Your task to perform on an android device: turn pop-ups off in chrome Image 0: 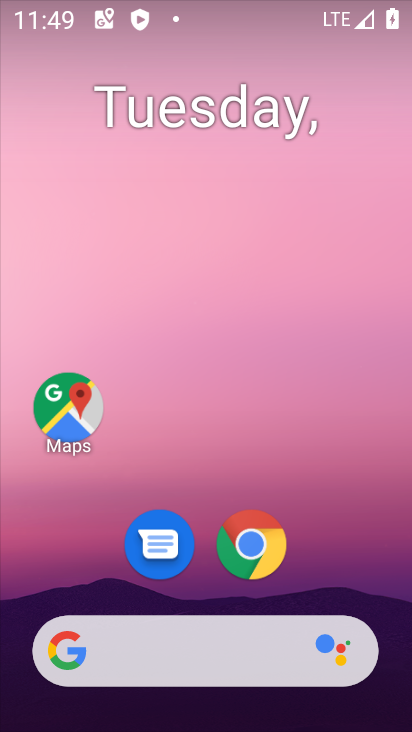
Step 0: drag from (392, 625) to (333, 52)
Your task to perform on an android device: turn pop-ups off in chrome Image 1: 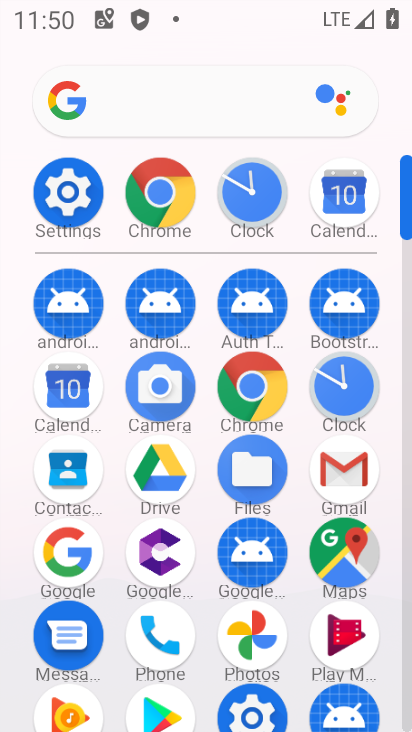
Step 1: click (259, 397)
Your task to perform on an android device: turn pop-ups off in chrome Image 2: 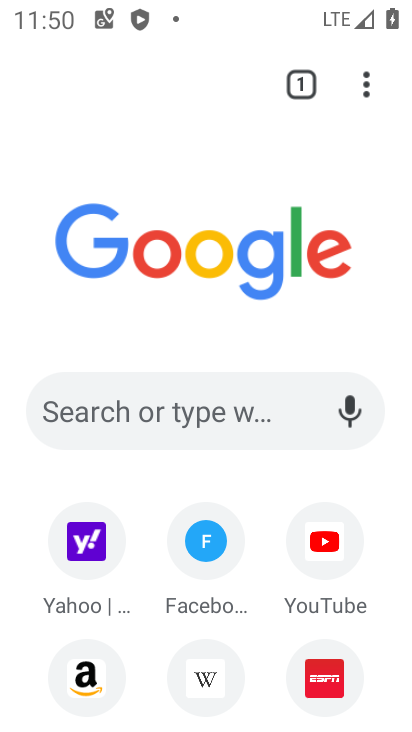
Step 2: click (371, 83)
Your task to perform on an android device: turn pop-ups off in chrome Image 3: 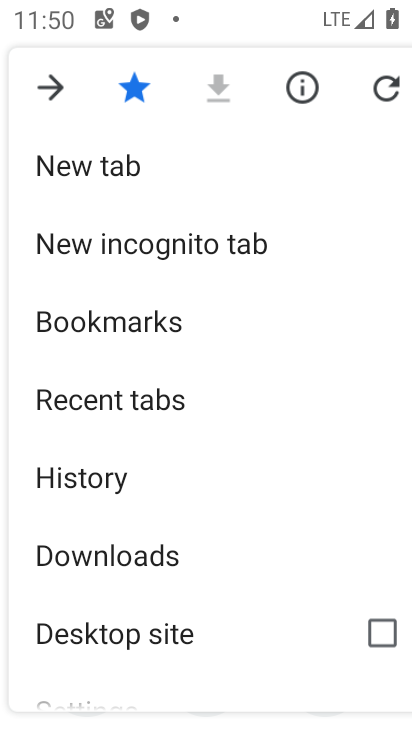
Step 3: drag from (271, 552) to (264, 175)
Your task to perform on an android device: turn pop-ups off in chrome Image 4: 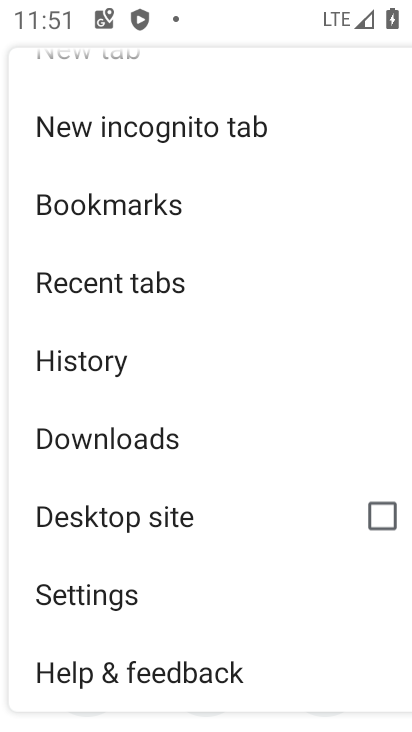
Step 4: click (160, 598)
Your task to perform on an android device: turn pop-ups off in chrome Image 5: 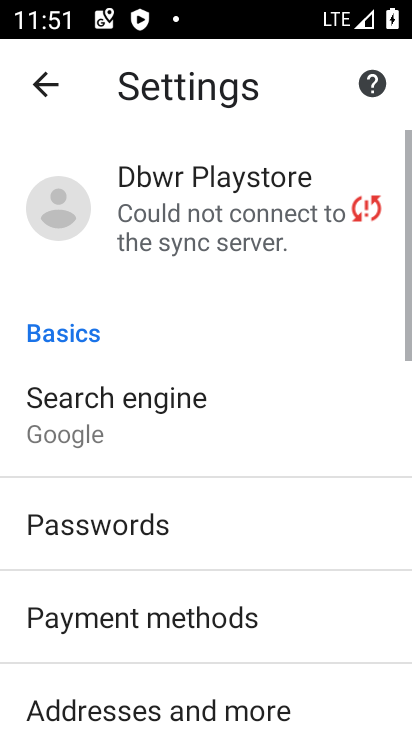
Step 5: drag from (160, 598) to (240, 162)
Your task to perform on an android device: turn pop-ups off in chrome Image 6: 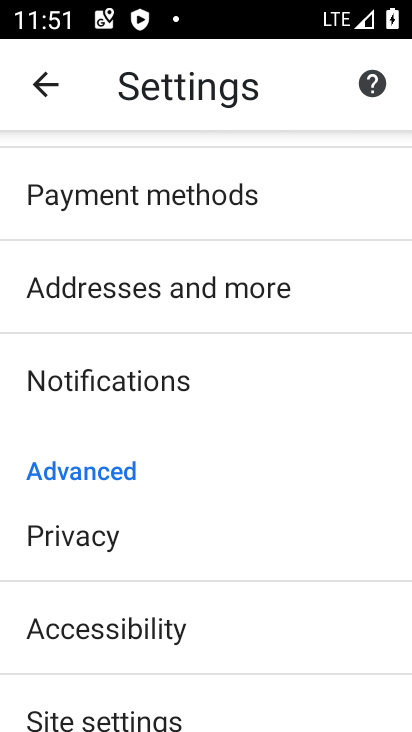
Step 6: click (185, 713)
Your task to perform on an android device: turn pop-ups off in chrome Image 7: 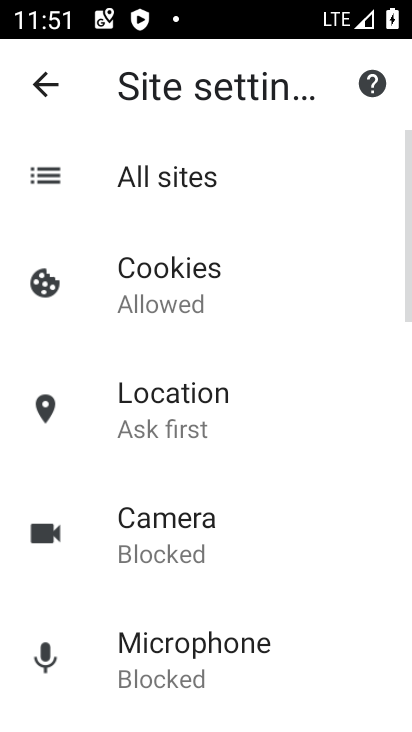
Step 7: drag from (217, 682) to (253, 210)
Your task to perform on an android device: turn pop-ups off in chrome Image 8: 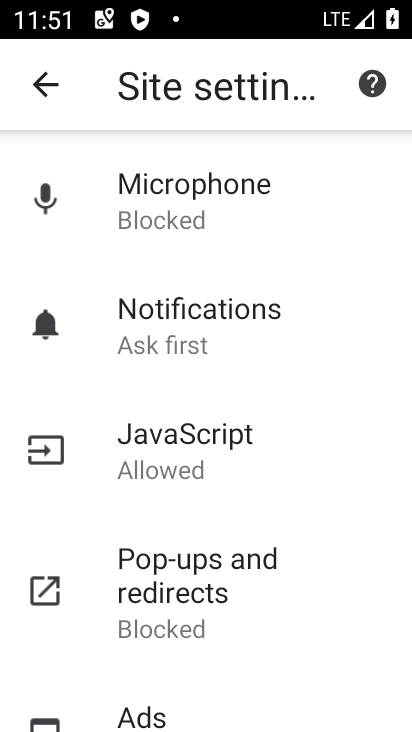
Step 8: click (237, 591)
Your task to perform on an android device: turn pop-ups off in chrome Image 9: 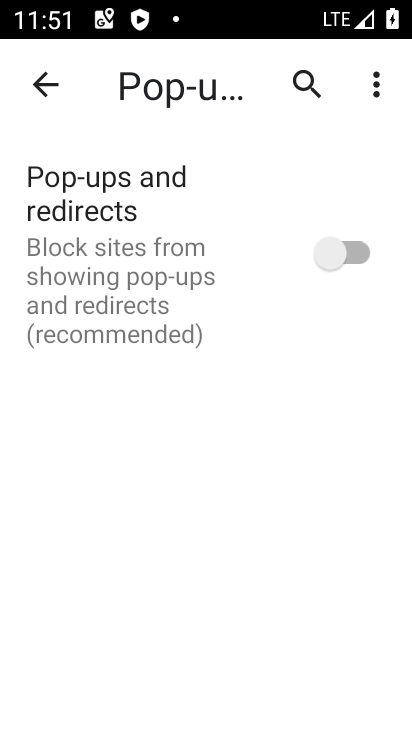
Step 9: task complete